Your task to perform on an android device: turn on the 12-hour format for clock Image 0: 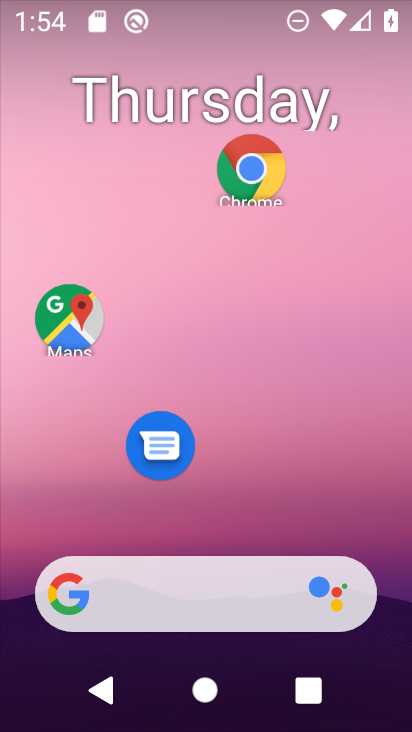
Step 0: drag from (227, 634) to (355, 105)
Your task to perform on an android device: turn on the 12-hour format for clock Image 1: 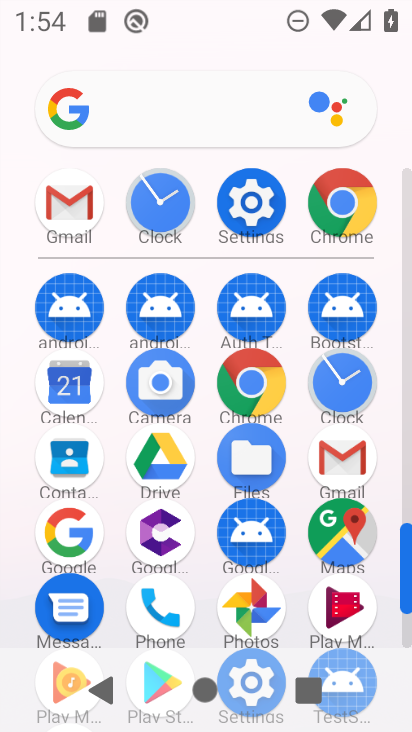
Step 1: click (234, 196)
Your task to perform on an android device: turn on the 12-hour format for clock Image 2: 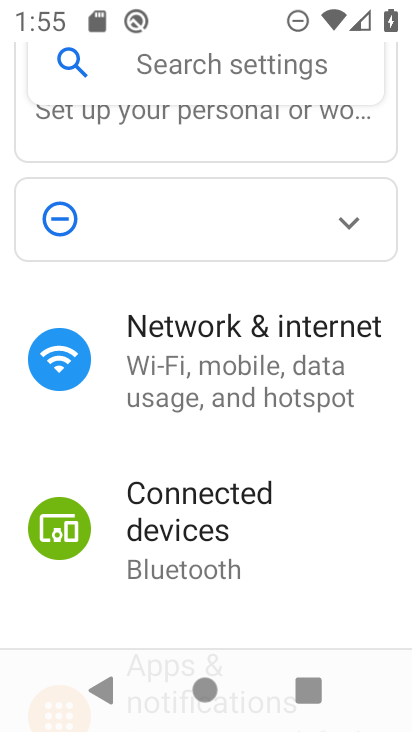
Step 2: press home button
Your task to perform on an android device: turn on the 12-hour format for clock Image 3: 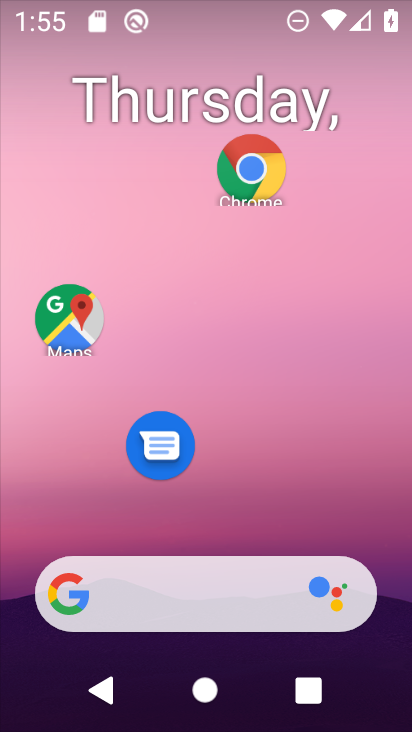
Step 3: drag from (266, 642) to (253, 318)
Your task to perform on an android device: turn on the 12-hour format for clock Image 4: 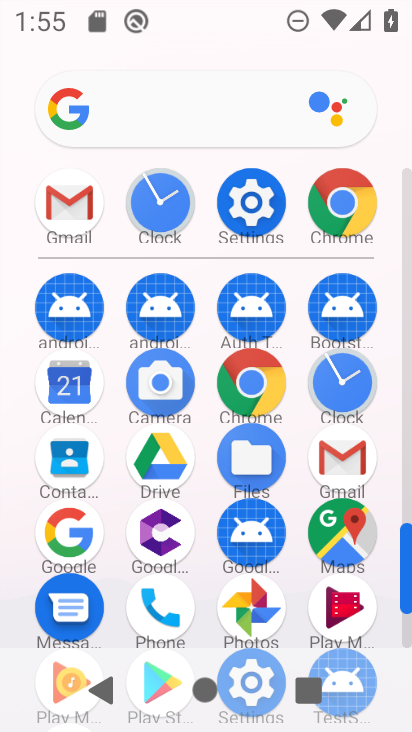
Step 4: click (158, 214)
Your task to perform on an android device: turn on the 12-hour format for clock Image 5: 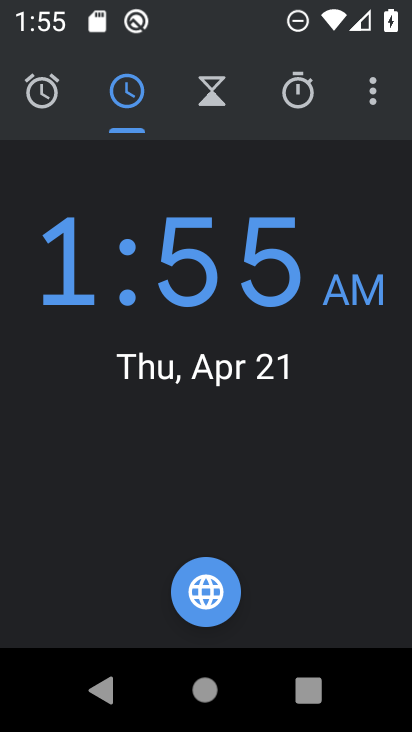
Step 5: click (358, 91)
Your task to perform on an android device: turn on the 12-hour format for clock Image 6: 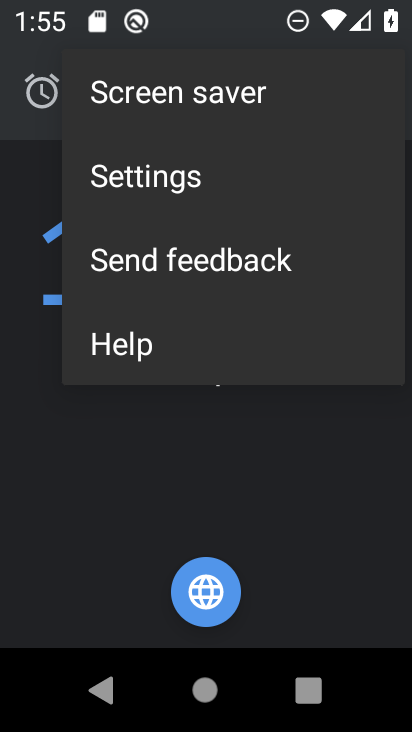
Step 6: click (199, 172)
Your task to perform on an android device: turn on the 12-hour format for clock Image 7: 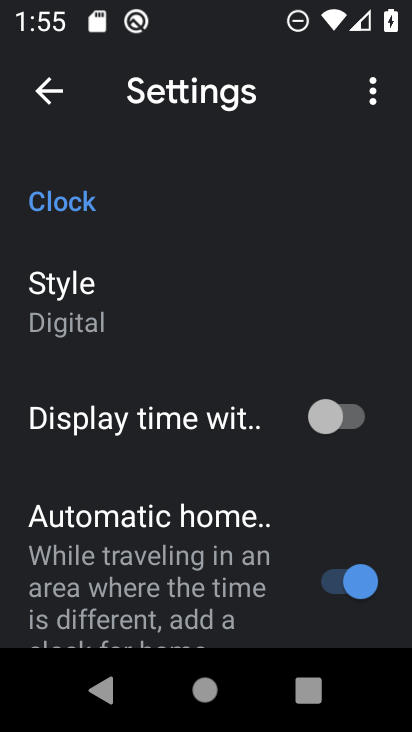
Step 7: click (105, 287)
Your task to perform on an android device: turn on the 12-hour format for clock Image 8: 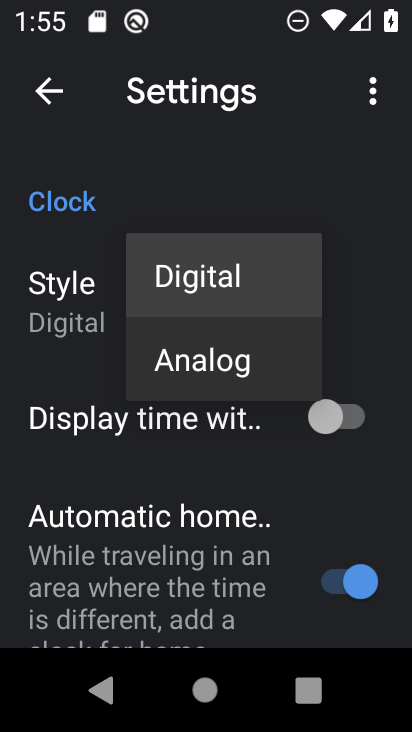
Step 8: click (77, 363)
Your task to perform on an android device: turn on the 12-hour format for clock Image 9: 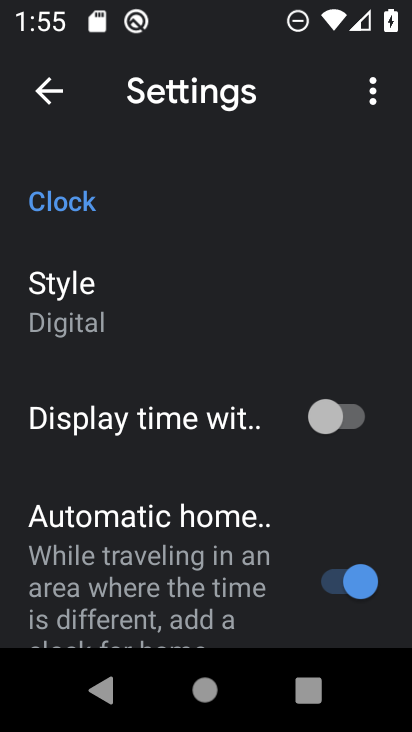
Step 9: drag from (111, 519) to (277, 240)
Your task to perform on an android device: turn on the 12-hour format for clock Image 10: 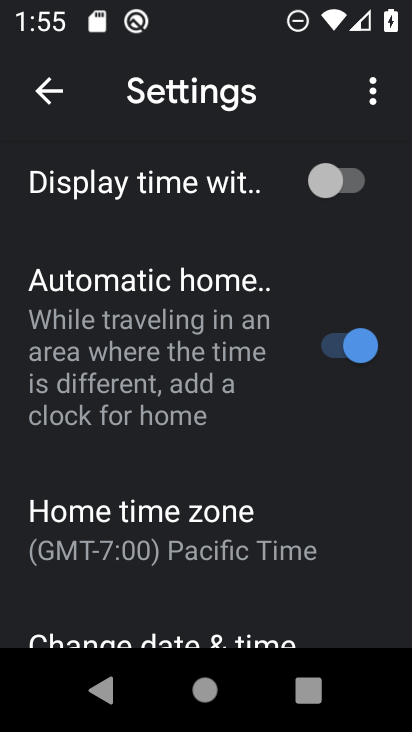
Step 10: drag from (236, 471) to (337, 248)
Your task to perform on an android device: turn on the 12-hour format for clock Image 11: 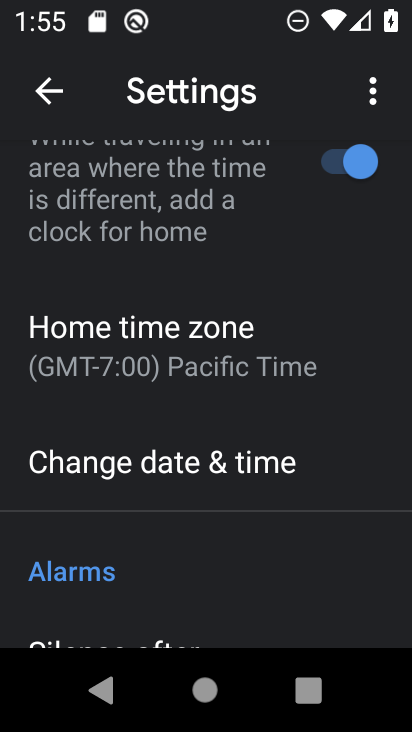
Step 11: click (186, 458)
Your task to perform on an android device: turn on the 12-hour format for clock Image 12: 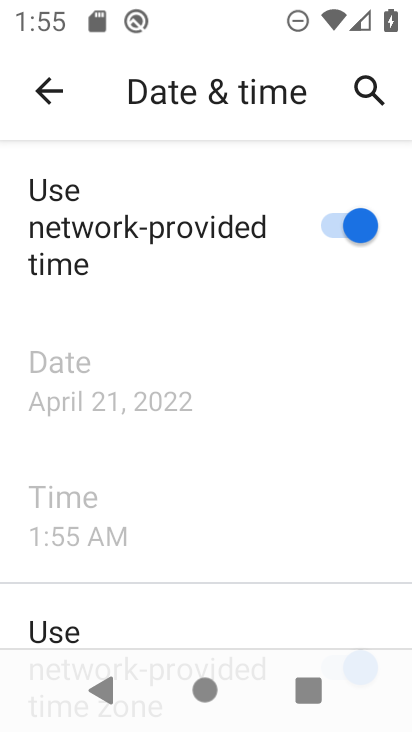
Step 12: drag from (204, 484) to (378, 202)
Your task to perform on an android device: turn on the 12-hour format for clock Image 13: 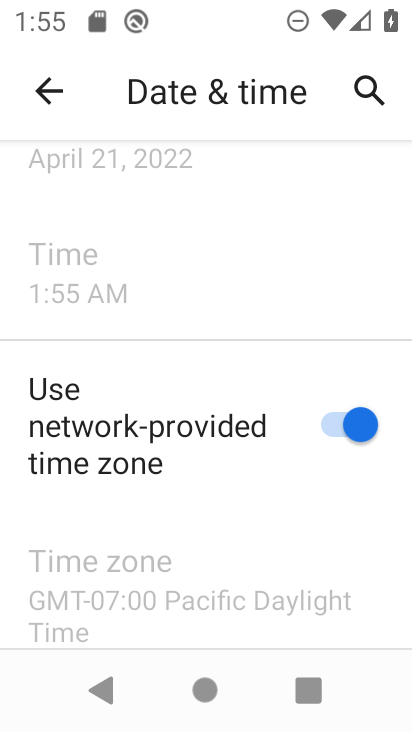
Step 13: drag from (299, 464) to (397, 110)
Your task to perform on an android device: turn on the 12-hour format for clock Image 14: 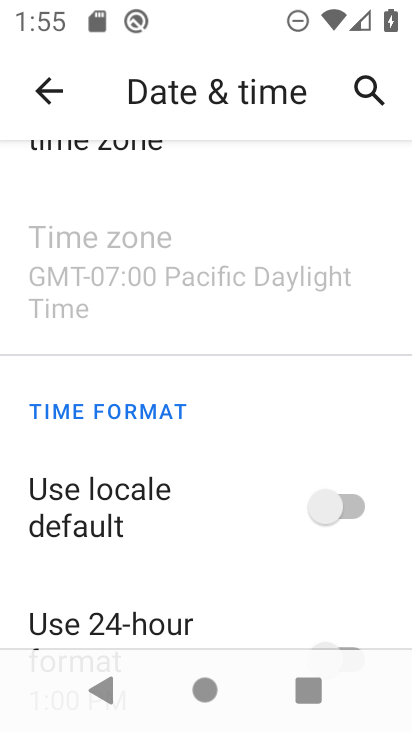
Step 14: drag from (233, 467) to (305, 308)
Your task to perform on an android device: turn on the 12-hour format for clock Image 15: 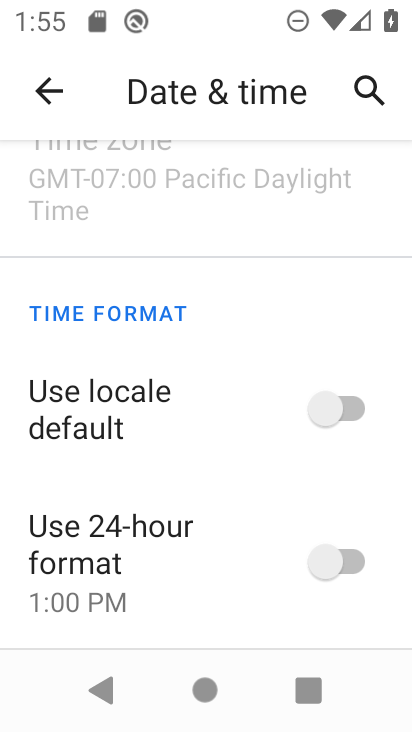
Step 15: click (348, 408)
Your task to perform on an android device: turn on the 12-hour format for clock Image 16: 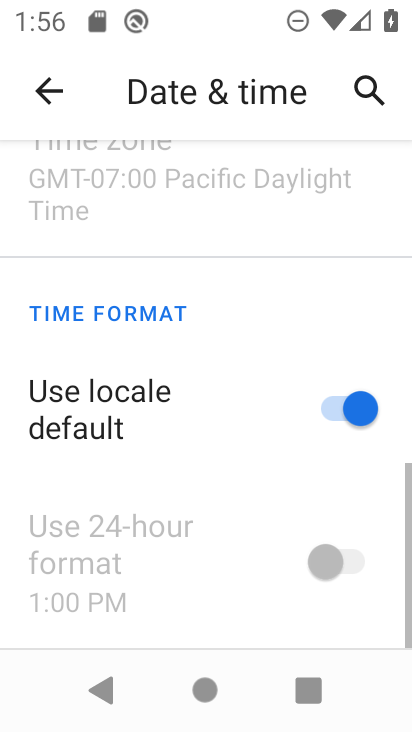
Step 16: click (309, 548)
Your task to perform on an android device: turn on the 12-hour format for clock Image 17: 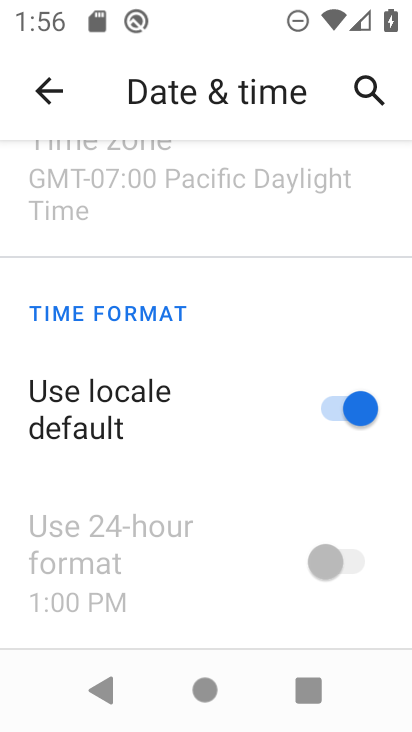
Step 17: drag from (236, 499) to (281, 329)
Your task to perform on an android device: turn on the 12-hour format for clock Image 18: 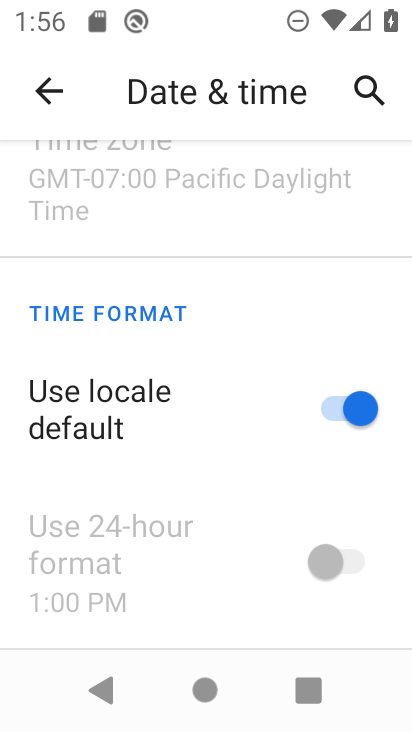
Step 18: click (331, 573)
Your task to perform on an android device: turn on the 12-hour format for clock Image 19: 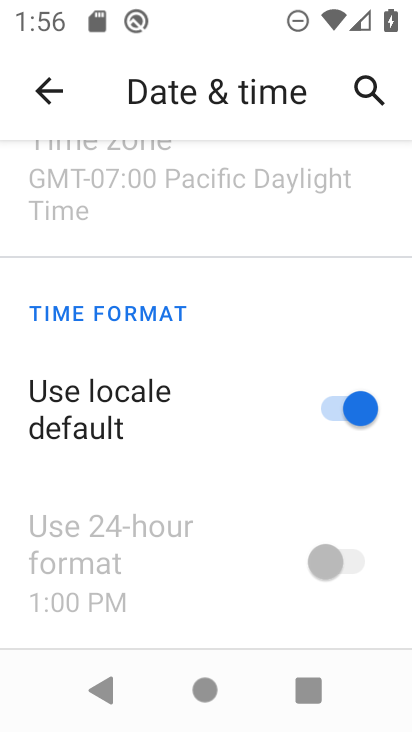
Step 19: click (338, 403)
Your task to perform on an android device: turn on the 12-hour format for clock Image 20: 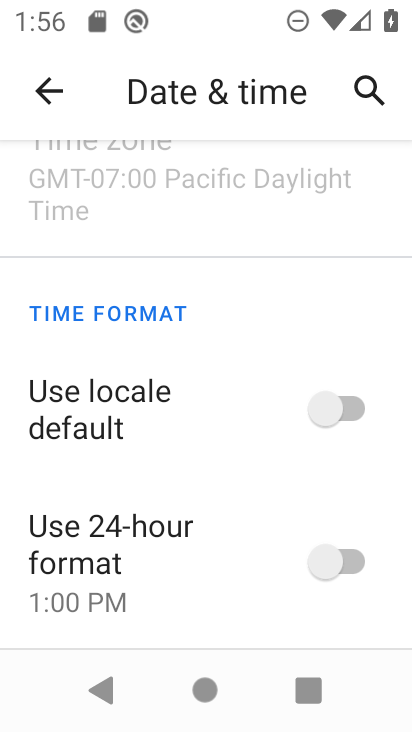
Step 20: task complete